Your task to perform on an android device: toggle data saver in the chrome app Image 0: 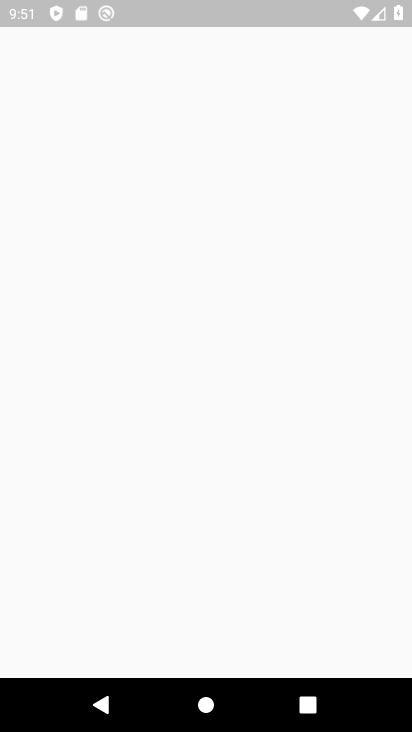
Step 0: press home button
Your task to perform on an android device: toggle data saver in the chrome app Image 1: 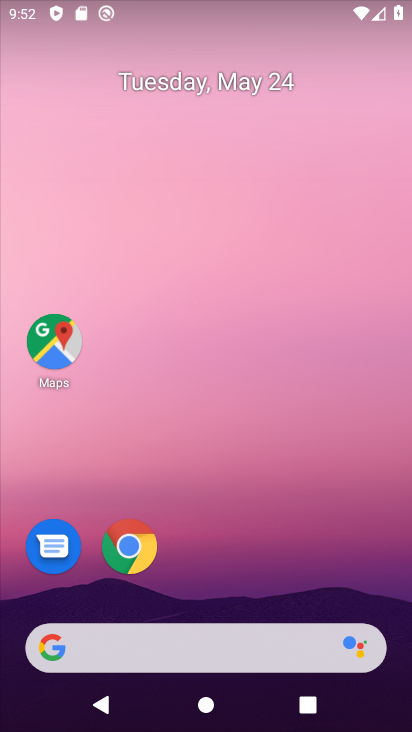
Step 1: drag from (301, 439) to (291, 135)
Your task to perform on an android device: toggle data saver in the chrome app Image 2: 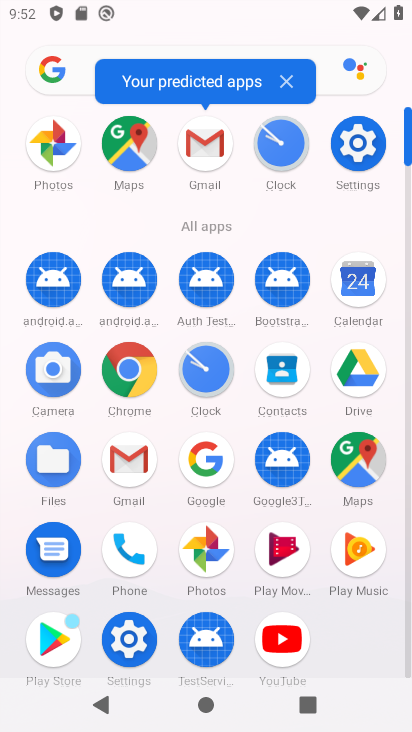
Step 2: click (128, 379)
Your task to perform on an android device: toggle data saver in the chrome app Image 3: 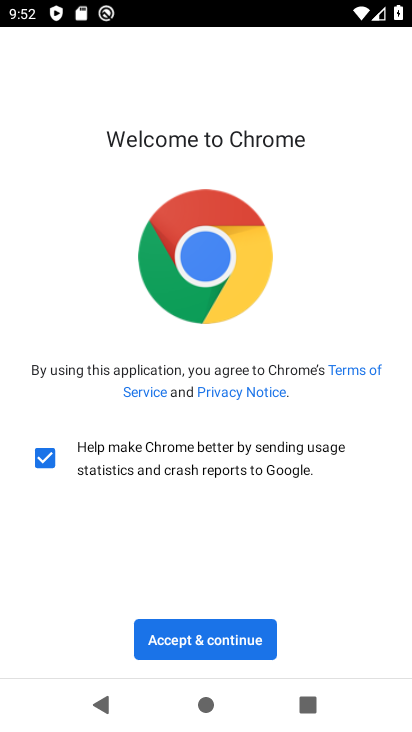
Step 3: click (224, 634)
Your task to perform on an android device: toggle data saver in the chrome app Image 4: 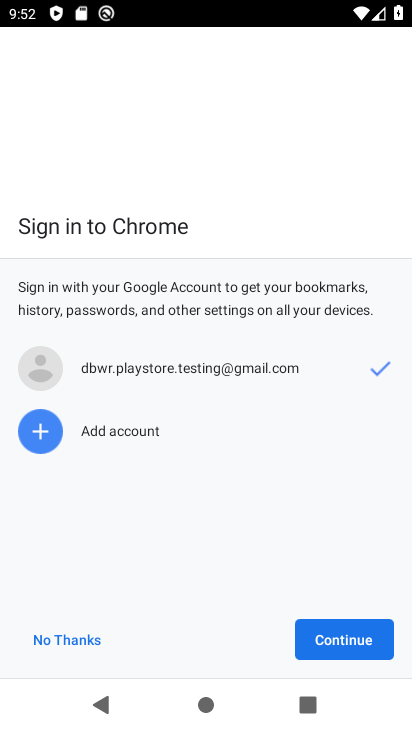
Step 4: click (343, 655)
Your task to perform on an android device: toggle data saver in the chrome app Image 5: 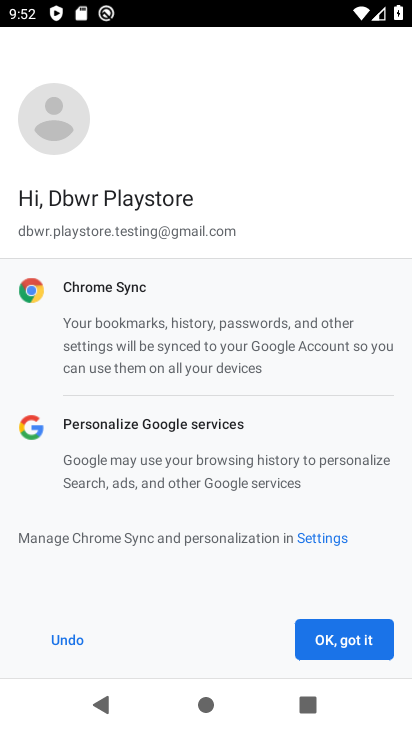
Step 5: click (343, 654)
Your task to perform on an android device: toggle data saver in the chrome app Image 6: 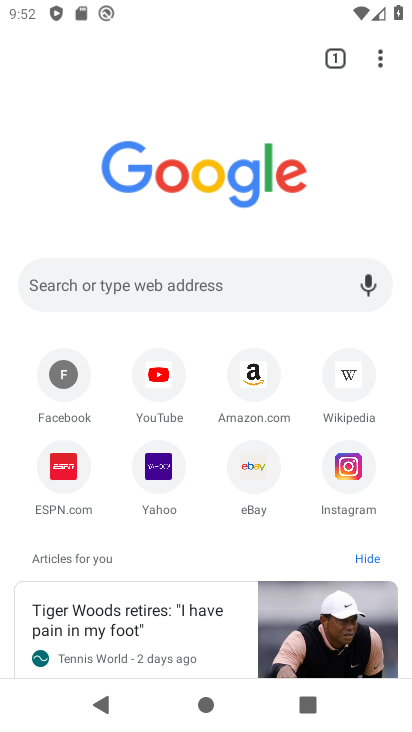
Step 6: drag from (377, 53) to (216, 491)
Your task to perform on an android device: toggle data saver in the chrome app Image 7: 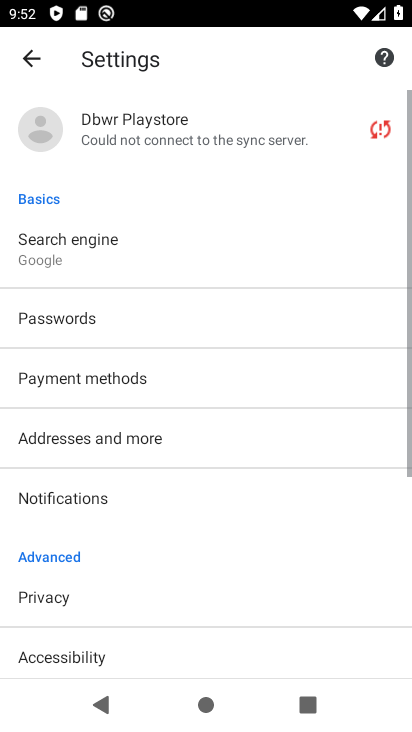
Step 7: drag from (217, 486) to (271, 133)
Your task to perform on an android device: toggle data saver in the chrome app Image 8: 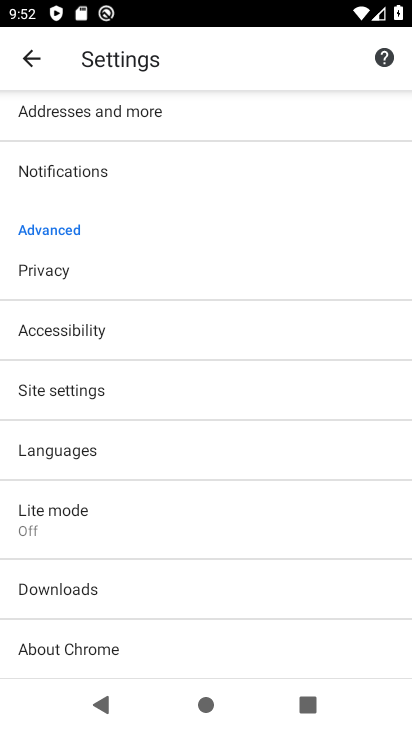
Step 8: click (73, 514)
Your task to perform on an android device: toggle data saver in the chrome app Image 9: 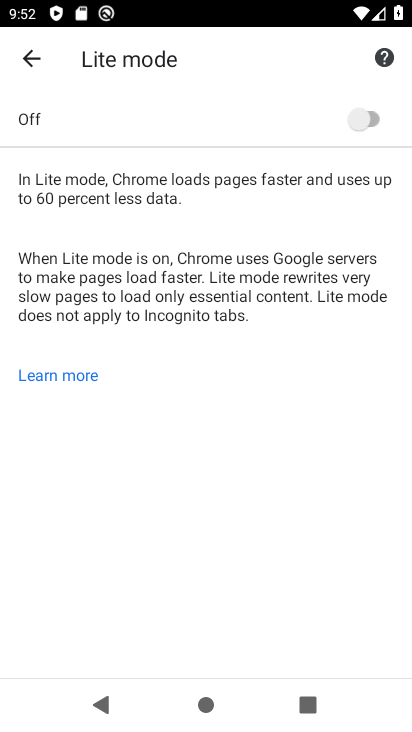
Step 9: click (344, 119)
Your task to perform on an android device: toggle data saver in the chrome app Image 10: 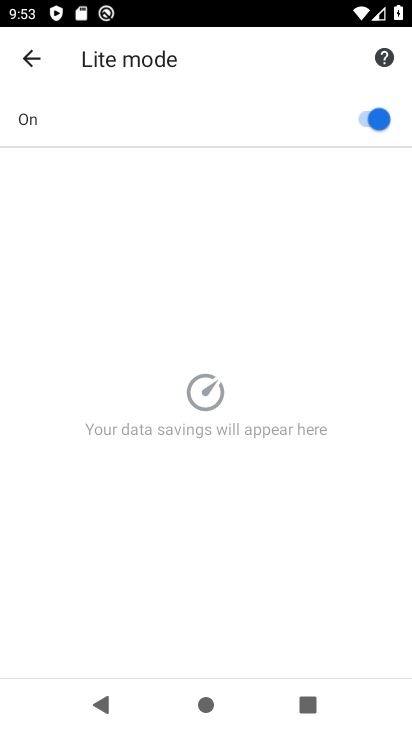
Step 10: task complete